Your task to perform on an android device: set the stopwatch Image 0: 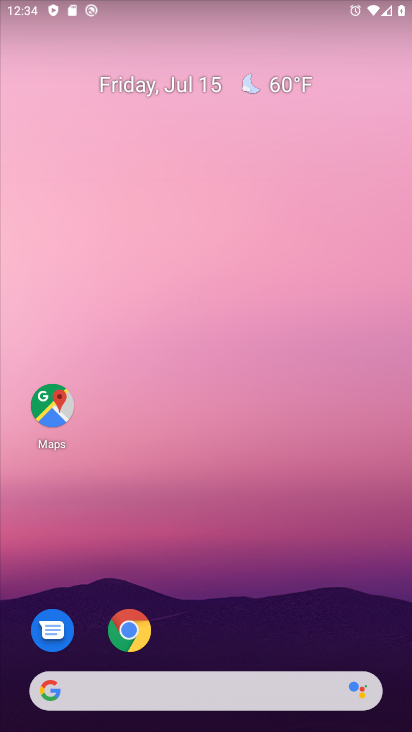
Step 0: drag from (217, 493) to (236, 322)
Your task to perform on an android device: set the stopwatch Image 1: 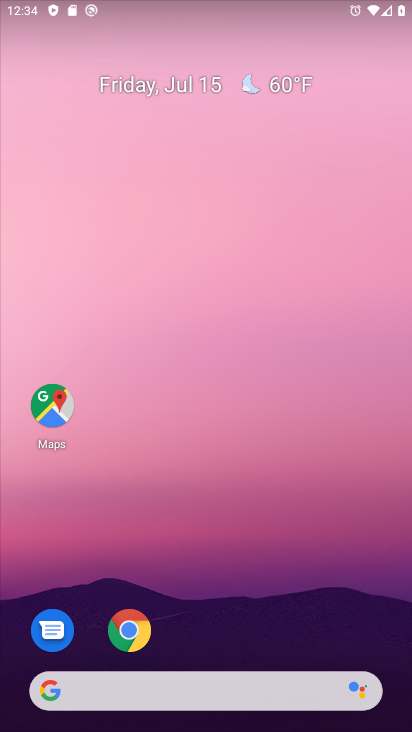
Step 1: drag from (187, 603) to (191, 115)
Your task to perform on an android device: set the stopwatch Image 2: 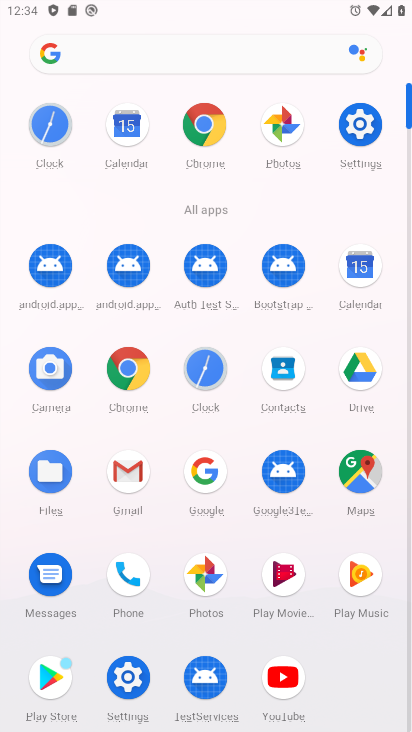
Step 2: click (359, 127)
Your task to perform on an android device: set the stopwatch Image 3: 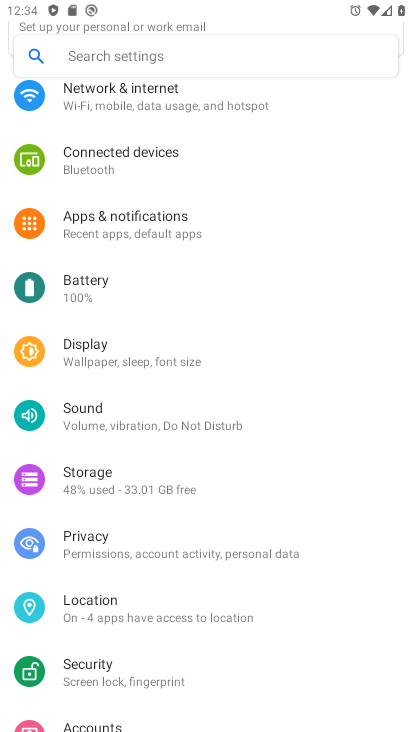
Step 3: press back button
Your task to perform on an android device: set the stopwatch Image 4: 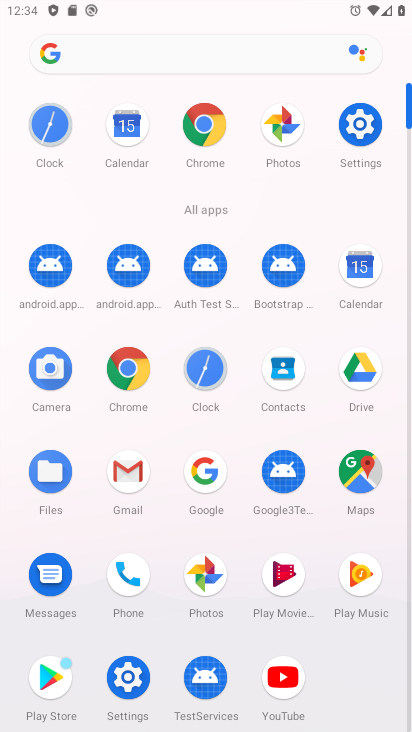
Step 4: click (196, 379)
Your task to perform on an android device: set the stopwatch Image 5: 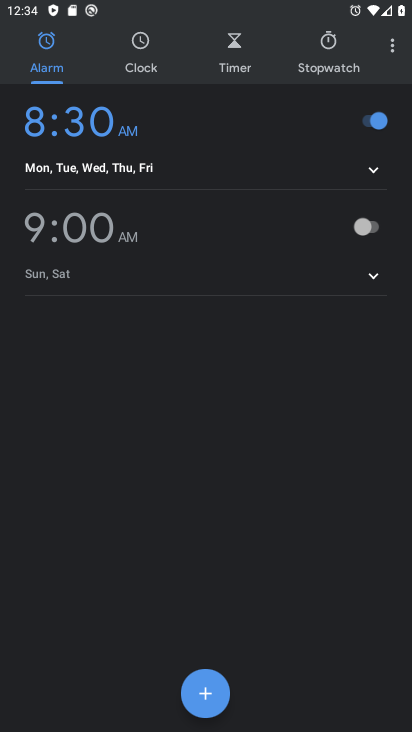
Step 5: click (336, 68)
Your task to perform on an android device: set the stopwatch Image 6: 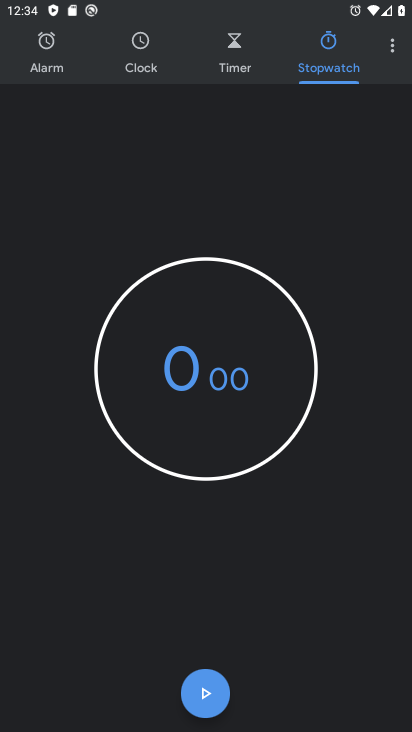
Step 6: click (196, 692)
Your task to perform on an android device: set the stopwatch Image 7: 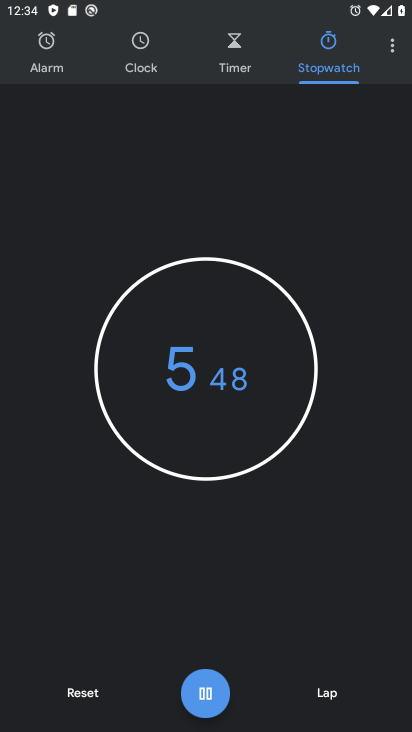
Step 7: click (204, 692)
Your task to perform on an android device: set the stopwatch Image 8: 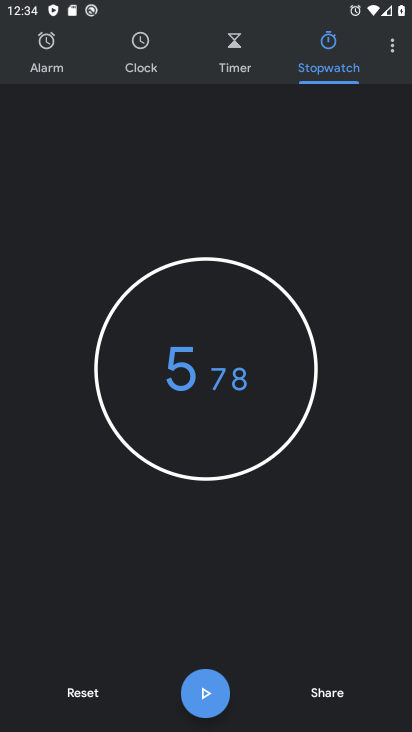
Step 8: task complete